Your task to perform on an android device: Open calendar and show me the first week of next month Image 0: 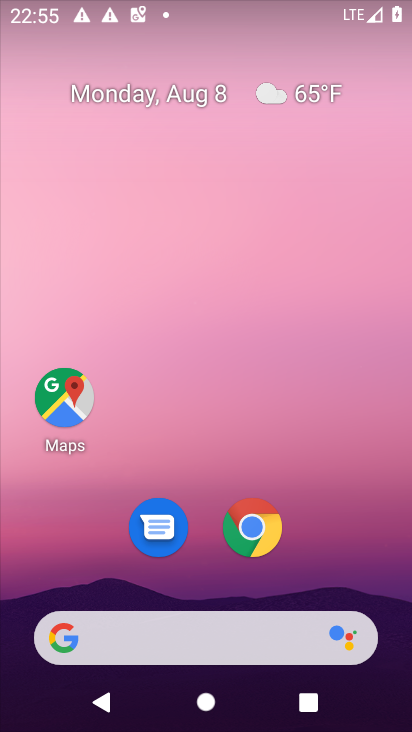
Step 0: drag from (393, 710) to (364, 208)
Your task to perform on an android device: Open calendar and show me the first week of next month Image 1: 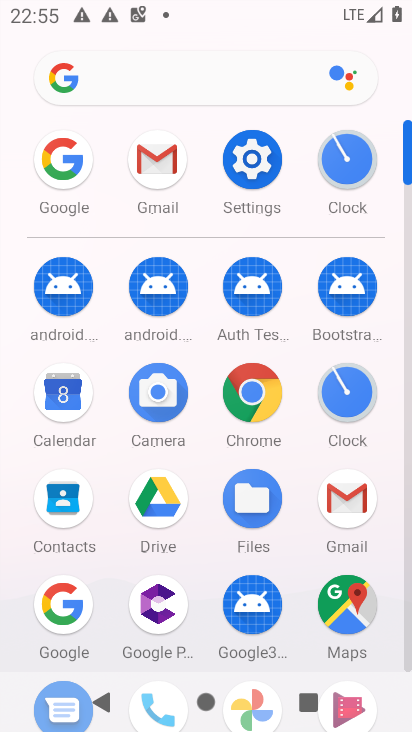
Step 1: click (57, 410)
Your task to perform on an android device: Open calendar and show me the first week of next month Image 2: 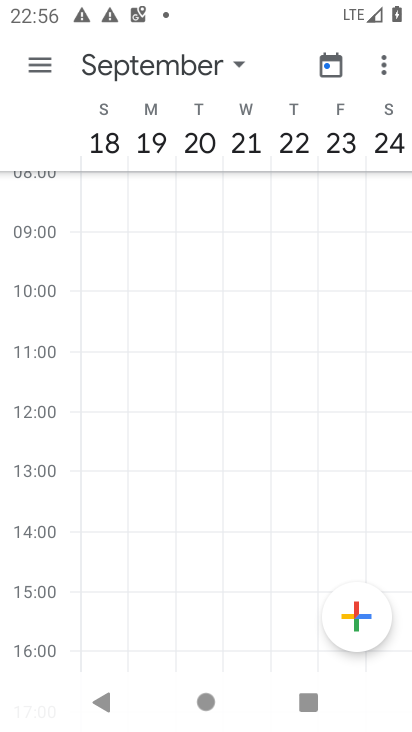
Step 2: click (241, 60)
Your task to perform on an android device: Open calendar and show me the first week of next month Image 3: 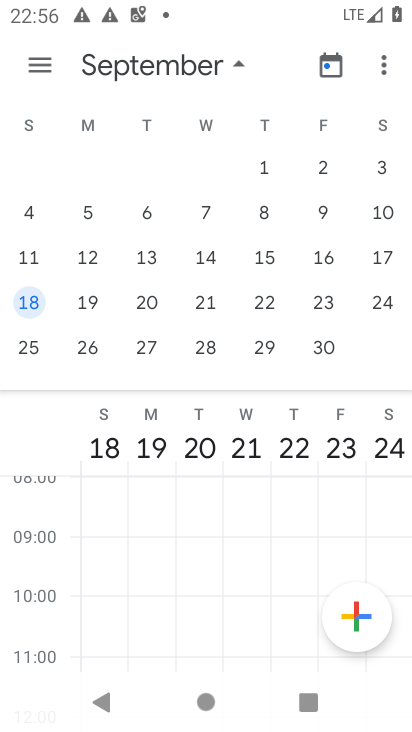
Step 3: click (267, 169)
Your task to perform on an android device: Open calendar and show me the first week of next month Image 4: 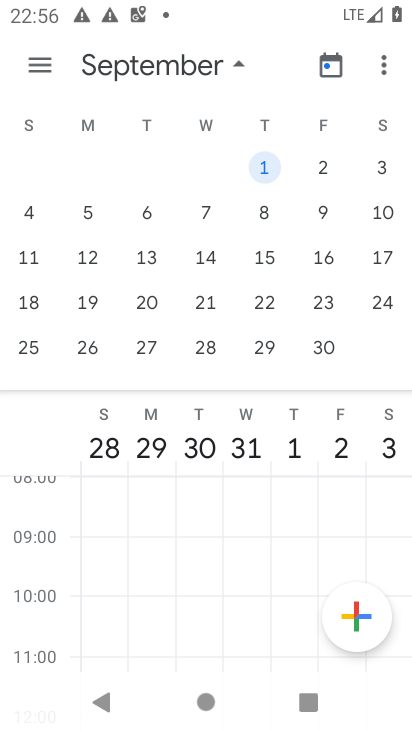
Step 4: task complete